Your task to perform on an android device: What is the capital of Sweden? Image 0: 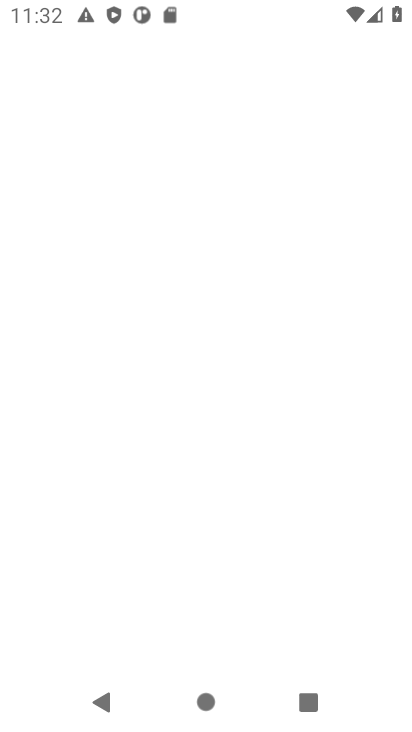
Step 0: click (252, 537)
Your task to perform on an android device: What is the capital of Sweden? Image 1: 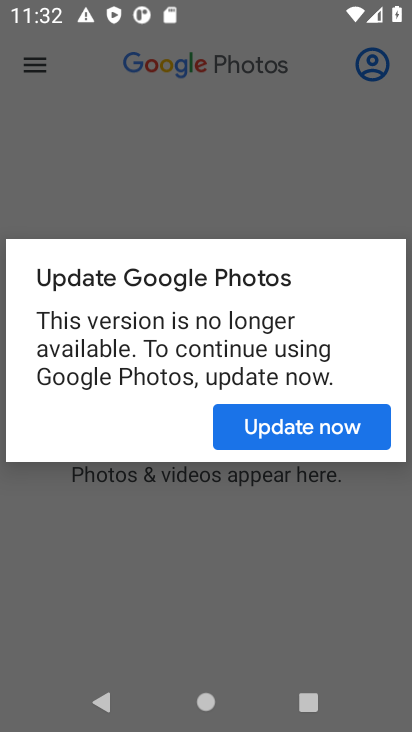
Step 1: press home button
Your task to perform on an android device: What is the capital of Sweden? Image 2: 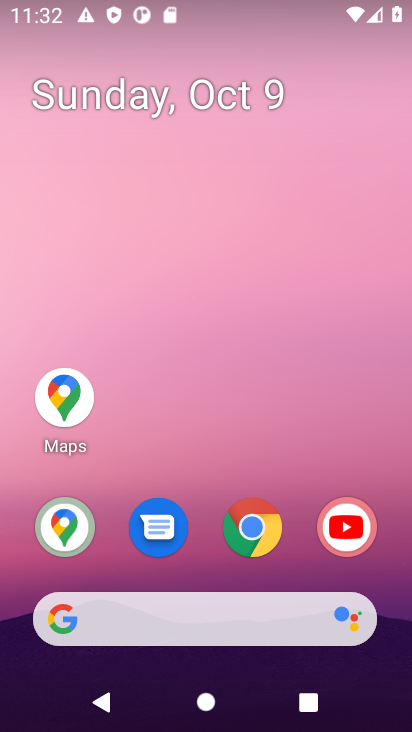
Step 2: click (257, 518)
Your task to perform on an android device: What is the capital of Sweden? Image 3: 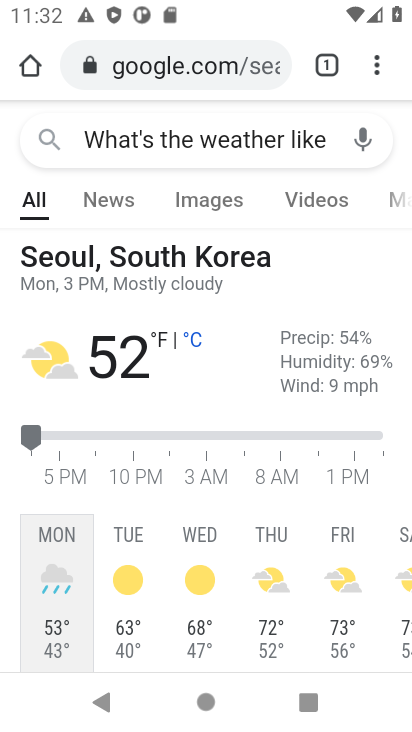
Step 3: click (190, 62)
Your task to perform on an android device: What is the capital of Sweden? Image 4: 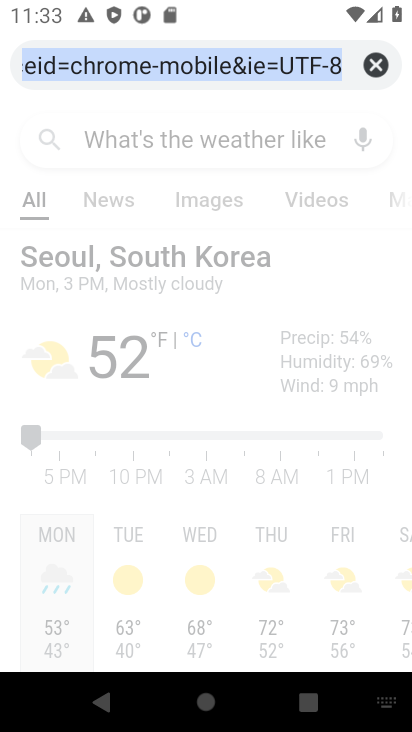
Step 4: type "capital of sweden ?"
Your task to perform on an android device: What is the capital of Sweden? Image 5: 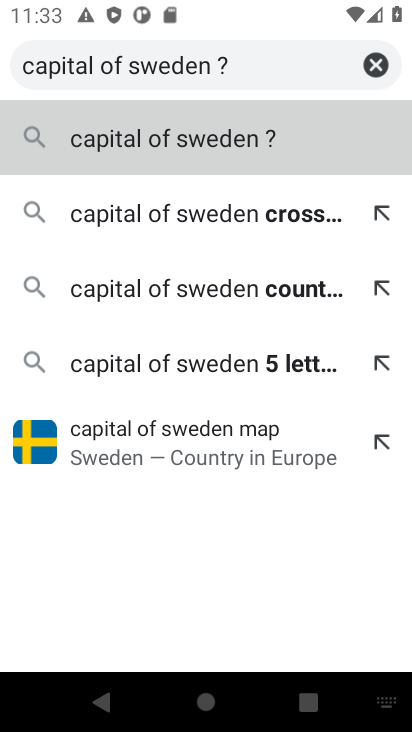
Step 5: click (281, 146)
Your task to perform on an android device: What is the capital of Sweden? Image 6: 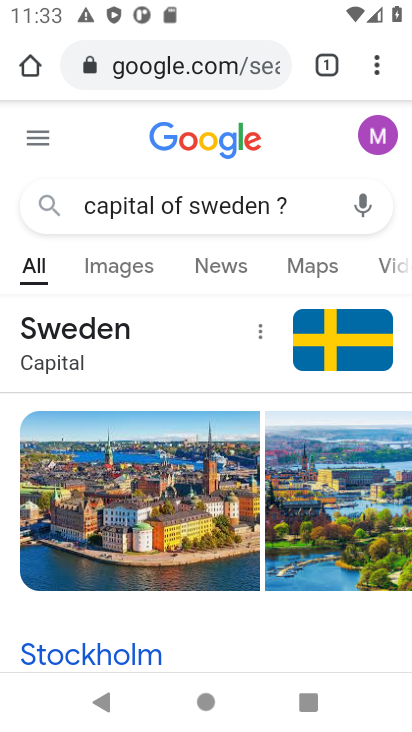
Step 6: task complete